Your task to perform on an android device: See recent photos Image 0: 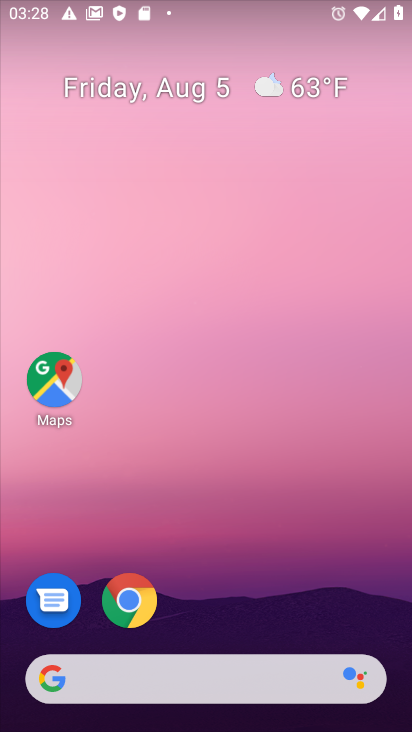
Step 0: drag from (179, 673) to (215, 205)
Your task to perform on an android device: See recent photos Image 1: 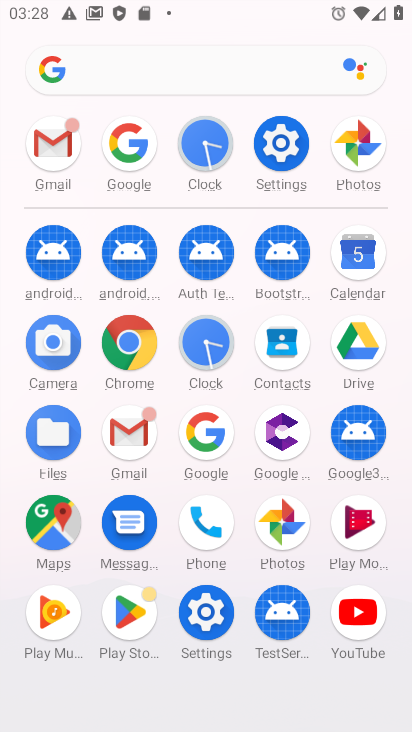
Step 1: click (360, 142)
Your task to perform on an android device: See recent photos Image 2: 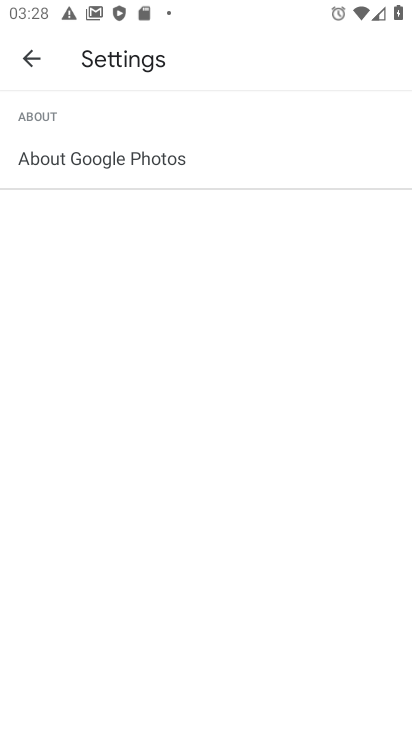
Step 2: press back button
Your task to perform on an android device: See recent photos Image 3: 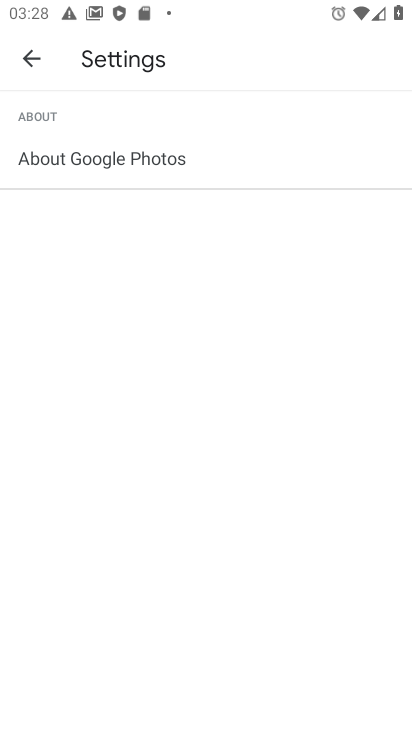
Step 3: press back button
Your task to perform on an android device: See recent photos Image 4: 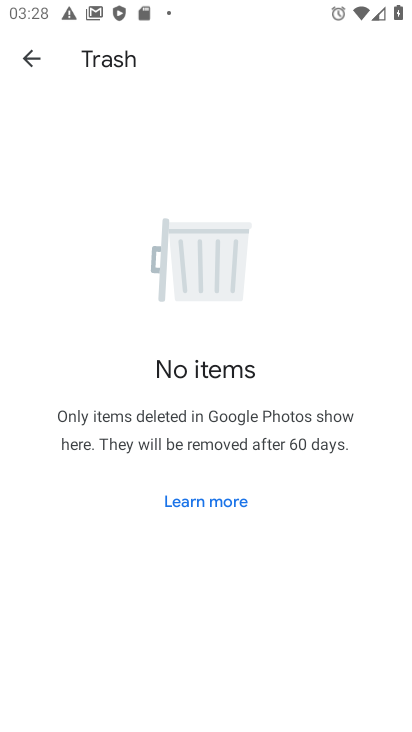
Step 4: press back button
Your task to perform on an android device: See recent photos Image 5: 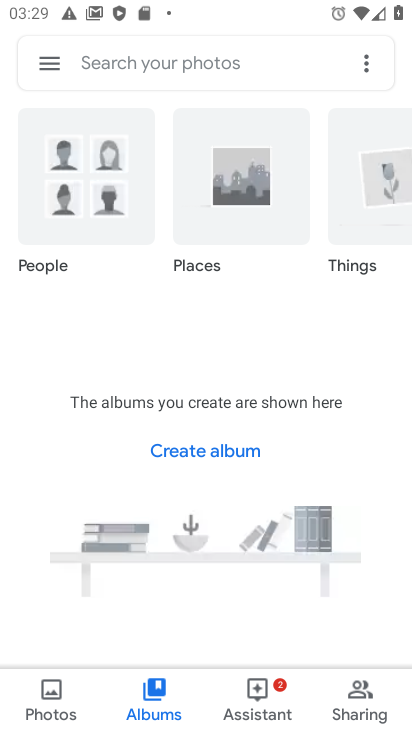
Step 5: click (56, 696)
Your task to perform on an android device: See recent photos Image 6: 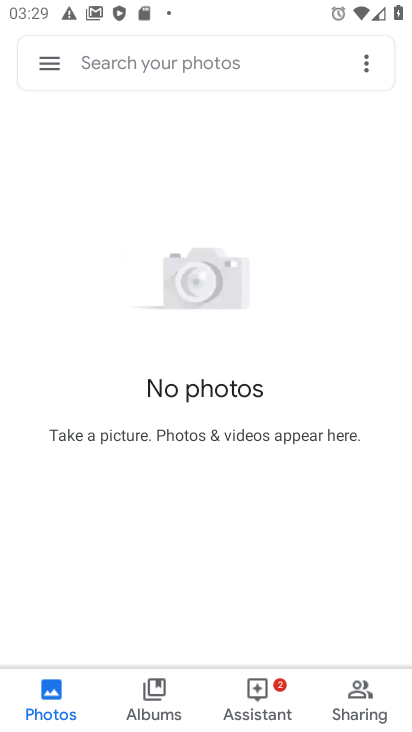
Step 6: task complete